Your task to perform on an android device: Open Android settings Image 0: 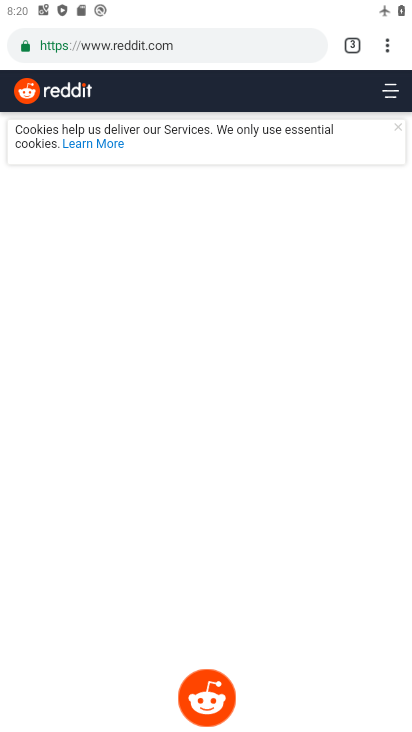
Step 0: press home button
Your task to perform on an android device: Open Android settings Image 1: 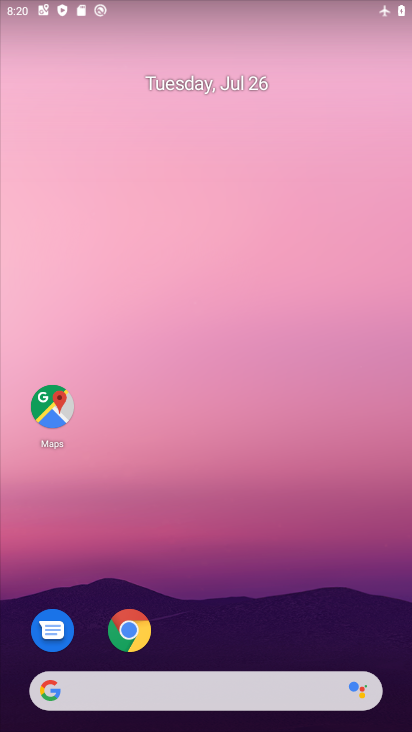
Step 1: drag from (231, 647) to (201, 40)
Your task to perform on an android device: Open Android settings Image 2: 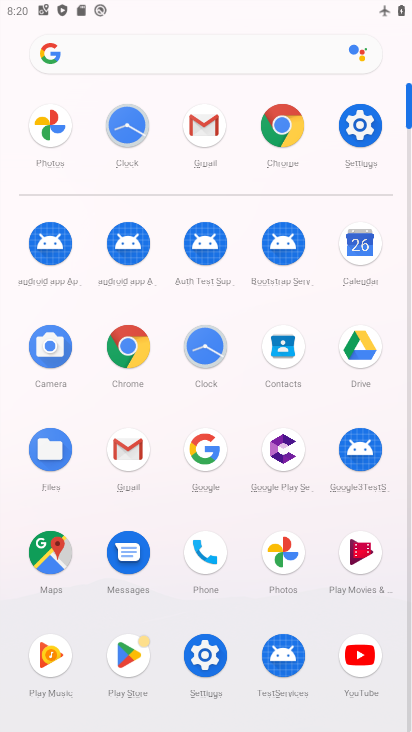
Step 2: click (200, 692)
Your task to perform on an android device: Open Android settings Image 3: 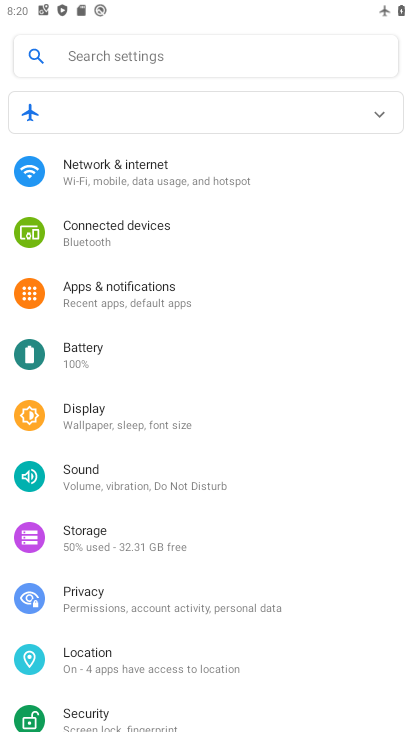
Step 3: task complete